Your task to perform on an android device: change the clock display to analog Image 0: 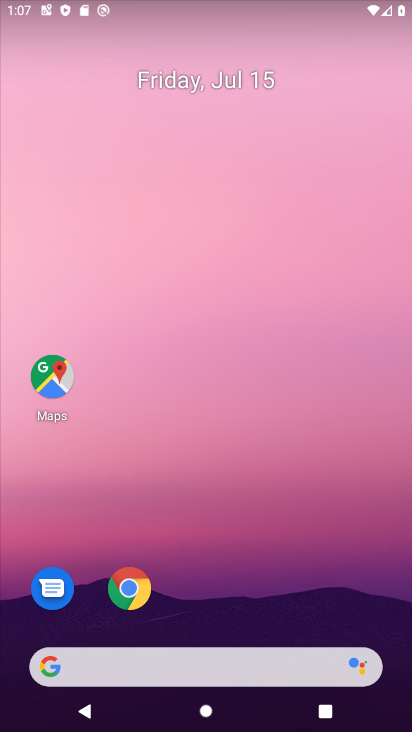
Step 0: drag from (378, 639) to (336, 87)
Your task to perform on an android device: change the clock display to analog Image 1: 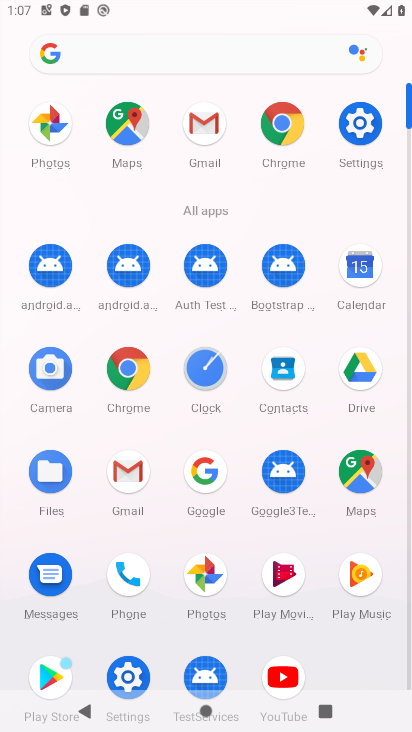
Step 1: click (205, 369)
Your task to perform on an android device: change the clock display to analog Image 2: 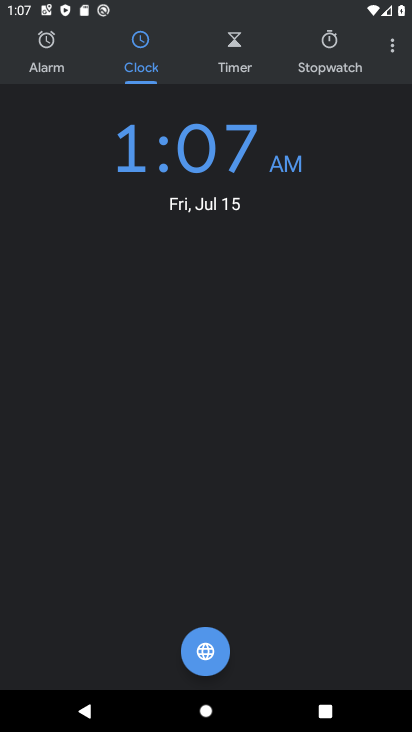
Step 2: click (391, 57)
Your task to perform on an android device: change the clock display to analog Image 3: 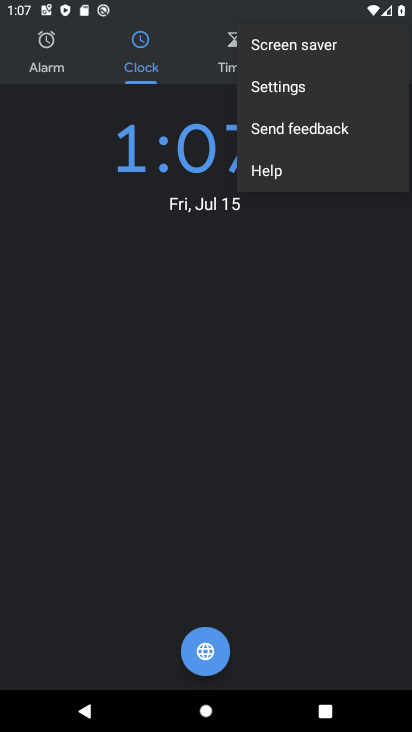
Step 3: click (278, 88)
Your task to perform on an android device: change the clock display to analog Image 4: 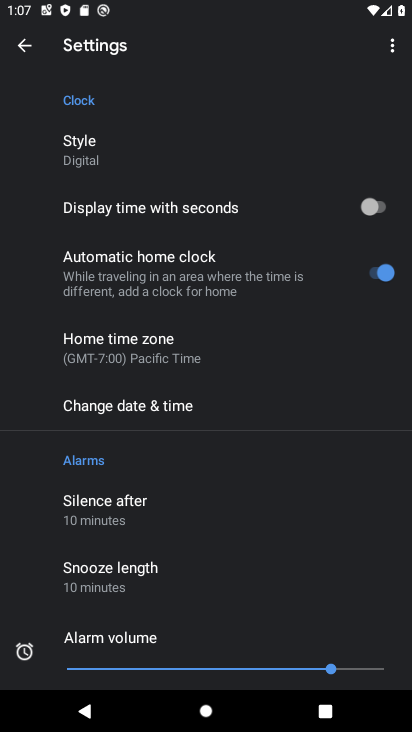
Step 4: click (77, 163)
Your task to perform on an android device: change the clock display to analog Image 5: 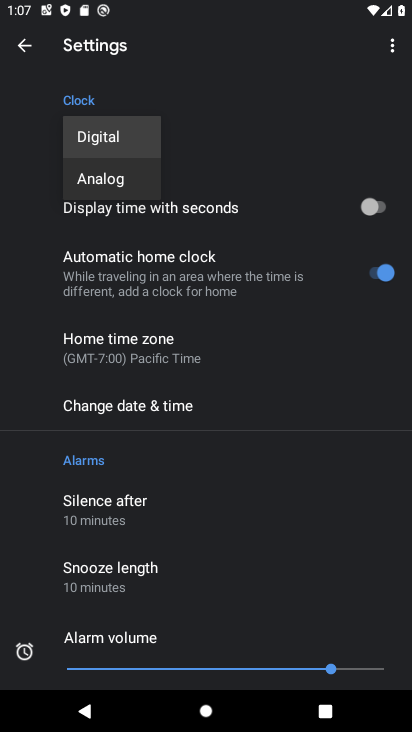
Step 5: click (100, 184)
Your task to perform on an android device: change the clock display to analog Image 6: 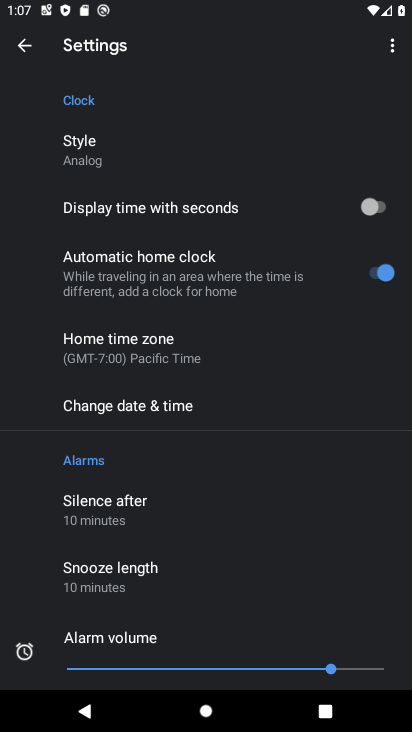
Step 6: task complete